Your task to perform on an android device: open app "Indeed Job Search" (install if not already installed) and enter user name: "quixotic@inbox.com" and password: "microphones" Image 0: 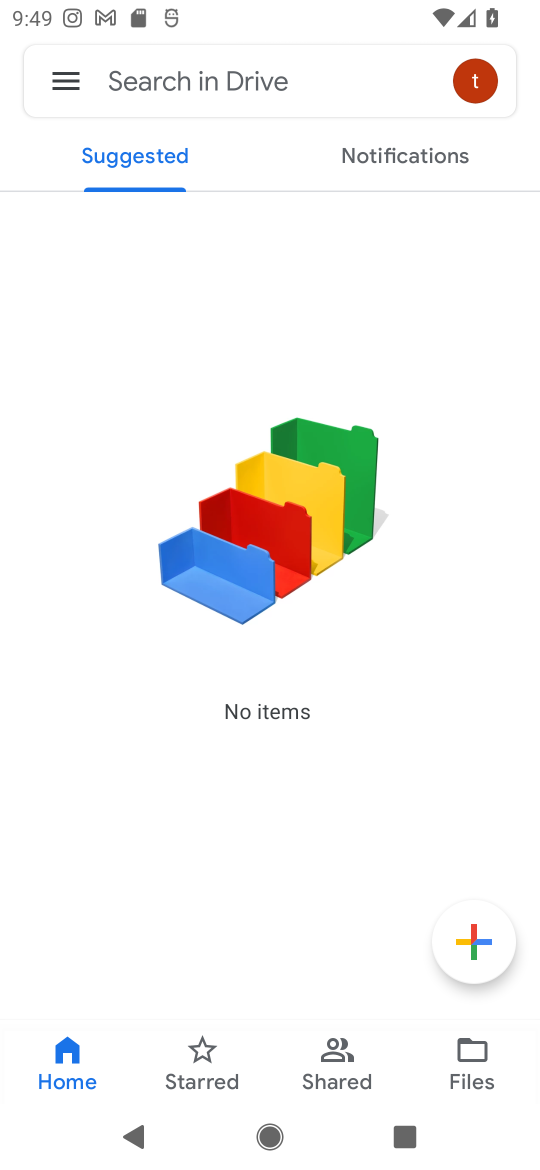
Step 0: press home button
Your task to perform on an android device: open app "Indeed Job Search" (install if not already installed) and enter user name: "quixotic@inbox.com" and password: "microphones" Image 1: 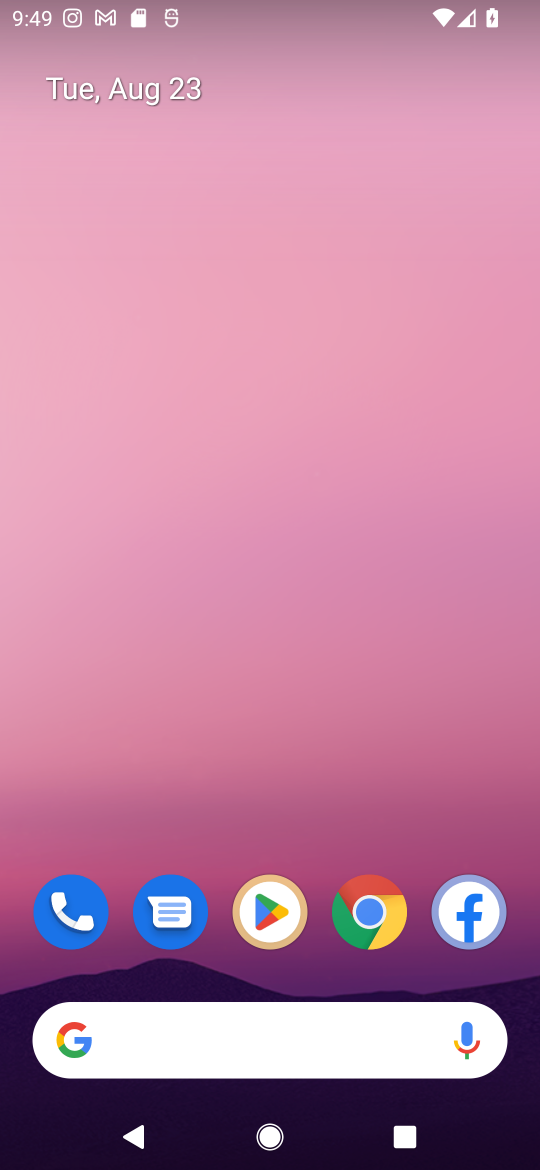
Step 1: click (263, 913)
Your task to perform on an android device: open app "Indeed Job Search" (install if not already installed) and enter user name: "quixotic@inbox.com" and password: "microphones" Image 2: 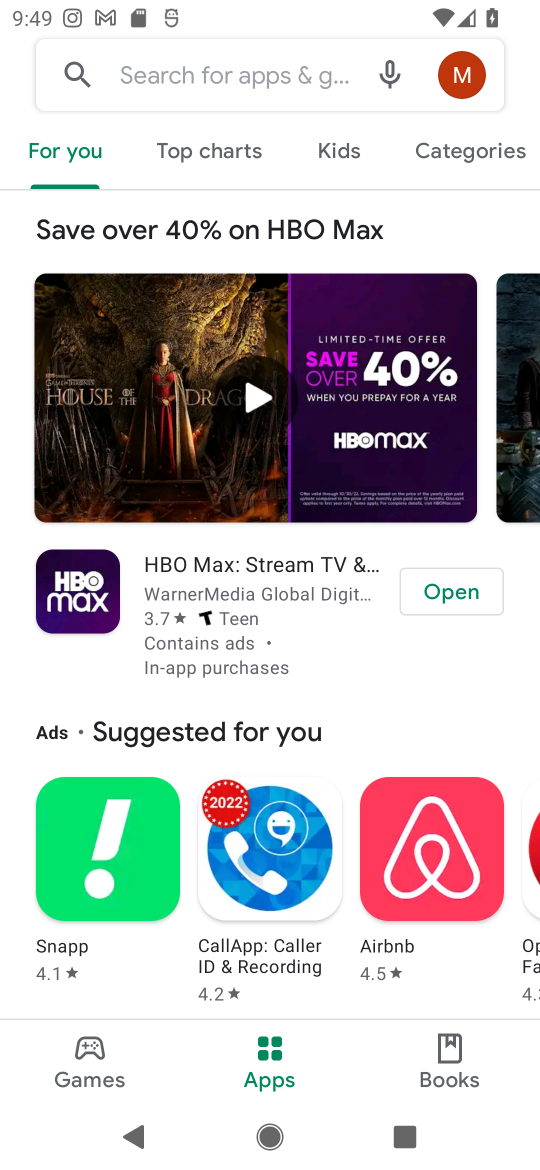
Step 2: click (245, 81)
Your task to perform on an android device: open app "Indeed Job Search" (install if not already installed) and enter user name: "quixotic@inbox.com" and password: "microphones" Image 3: 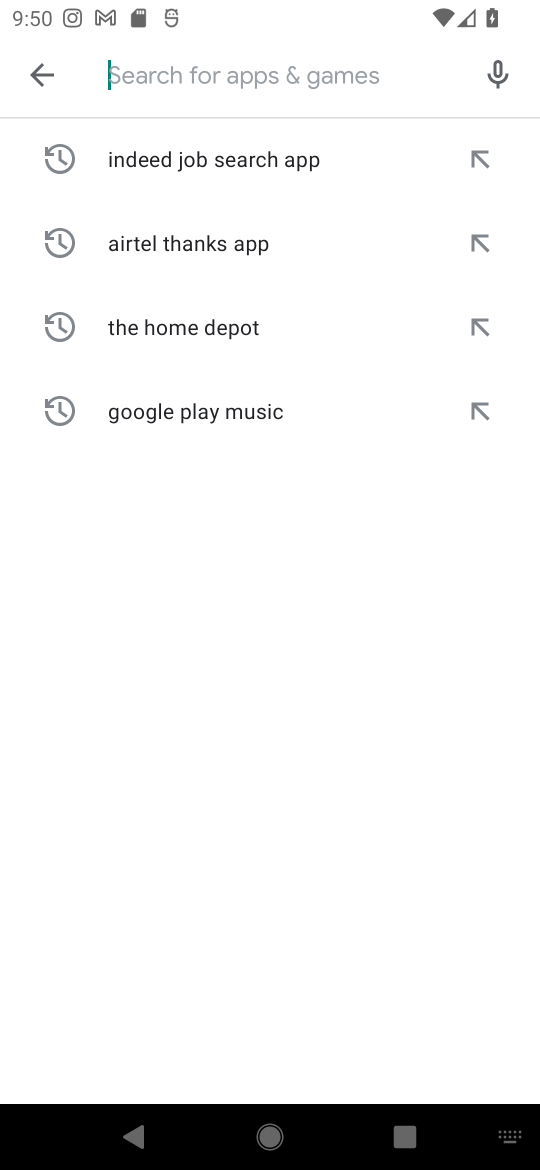
Step 3: type "Indeed Job Search"
Your task to perform on an android device: open app "Indeed Job Search" (install if not already installed) and enter user name: "quixotic@inbox.com" and password: "microphones" Image 4: 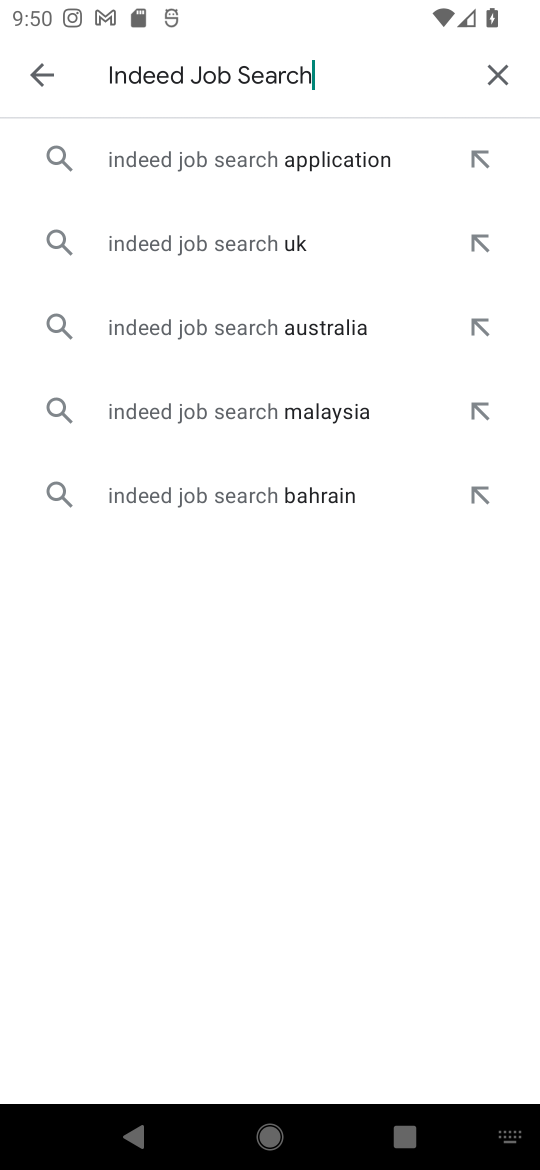
Step 4: click (239, 161)
Your task to perform on an android device: open app "Indeed Job Search" (install if not already installed) and enter user name: "quixotic@inbox.com" and password: "microphones" Image 5: 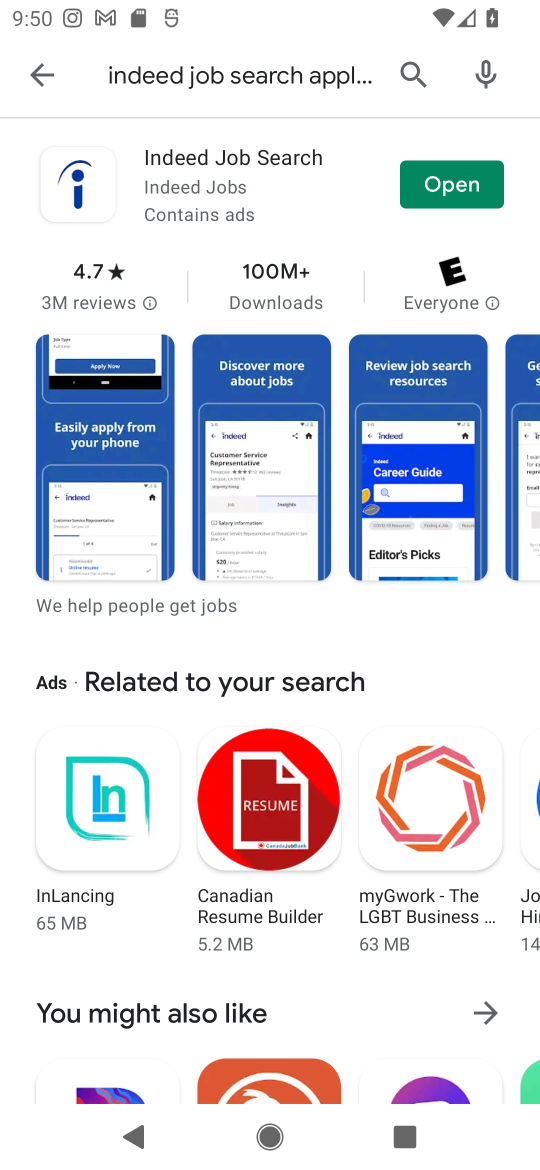
Step 5: click (461, 182)
Your task to perform on an android device: open app "Indeed Job Search" (install if not already installed) and enter user name: "quixotic@inbox.com" and password: "microphones" Image 6: 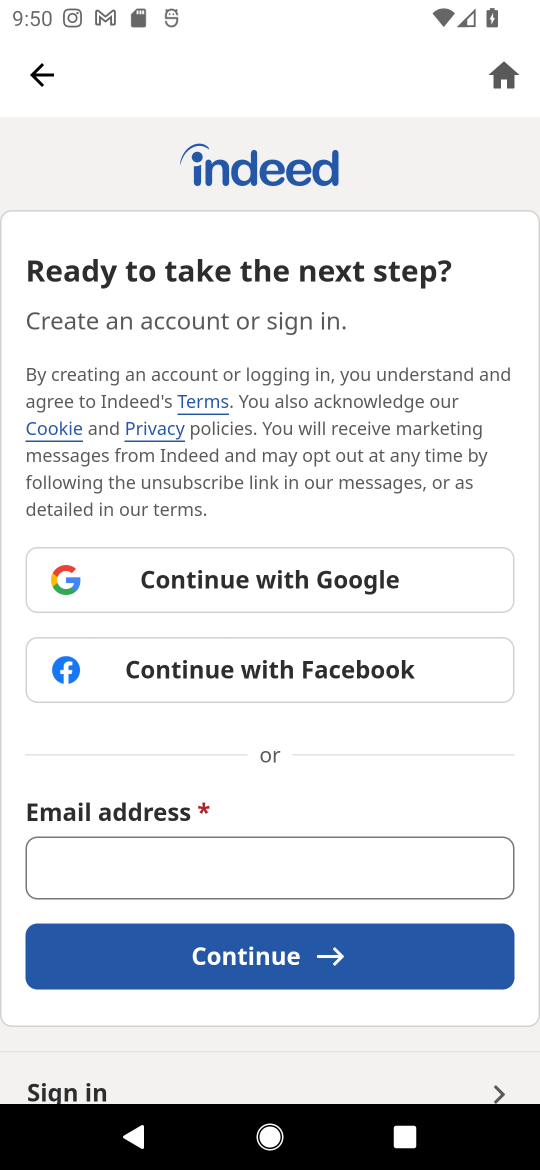
Step 6: click (229, 865)
Your task to perform on an android device: open app "Indeed Job Search" (install if not already installed) and enter user name: "quixotic@inbox.com" and password: "microphones" Image 7: 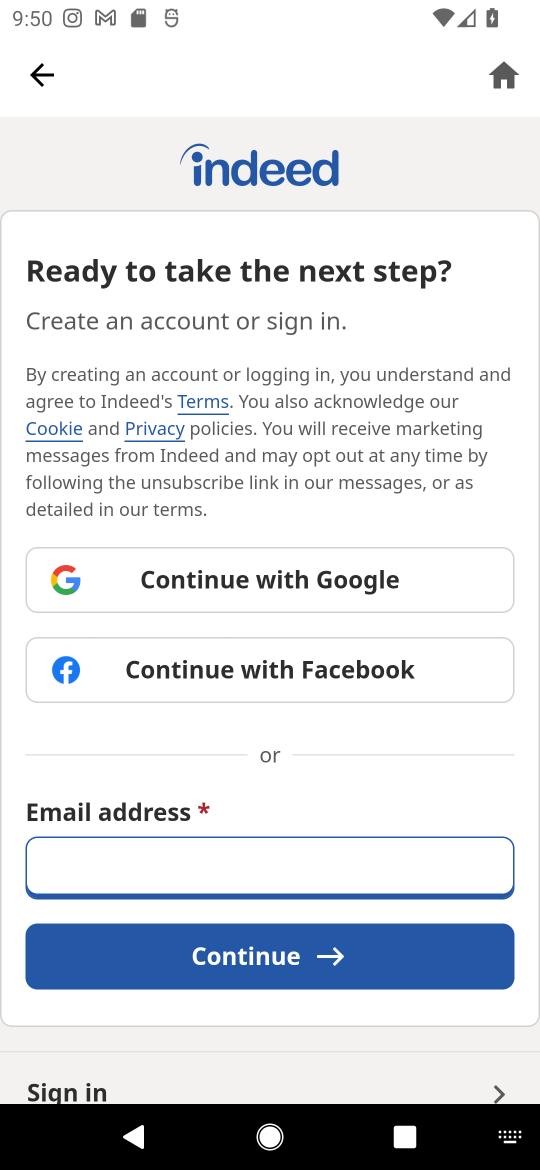
Step 7: type "quixotic@inbox.com"
Your task to perform on an android device: open app "Indeed Job Search" (install if not already installed) and enter user name: "quixotic@inbox.com" and password: "microphones" Image 8: 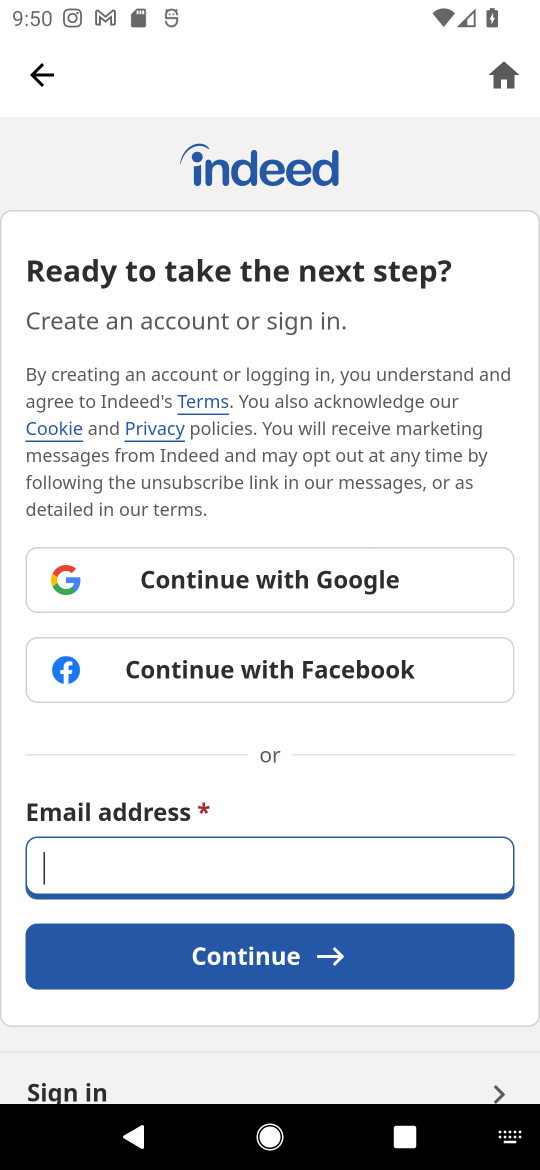
Step 8: type ""
Your task to perform on an android device: open app "Indeed Job Search" (install if not already installed) and enter user name: "quixotic@inbox.com" and password: "microphones" Image 9: 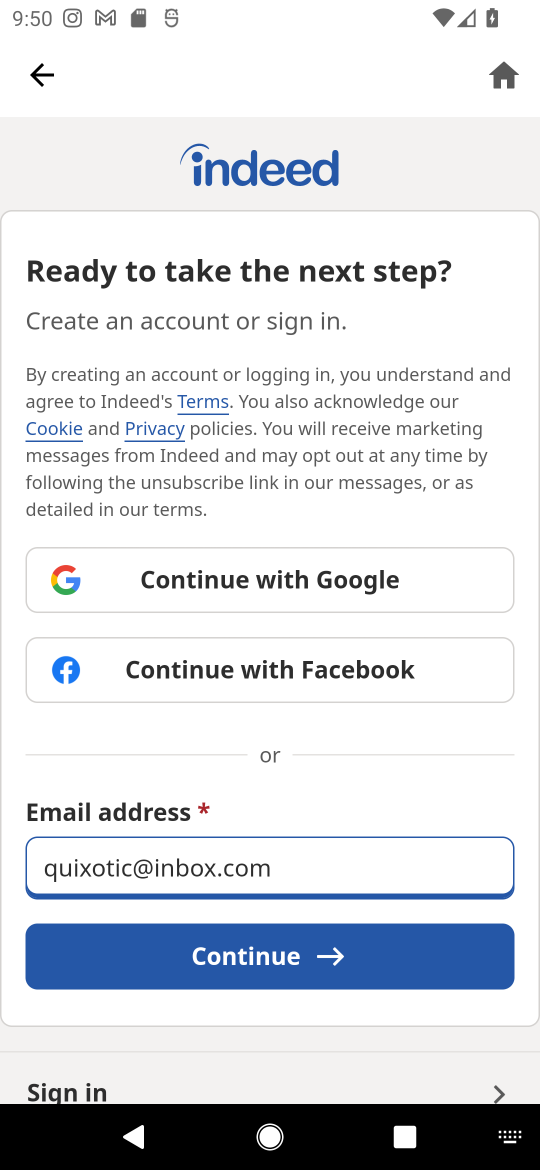
Step 9: click (325, 949)
Your task to perform on an android device: open app "Indeed Job Search" (install if not already installed) and enter user name: "quixotic@inbox.com" and password: "microphones" Image 10: 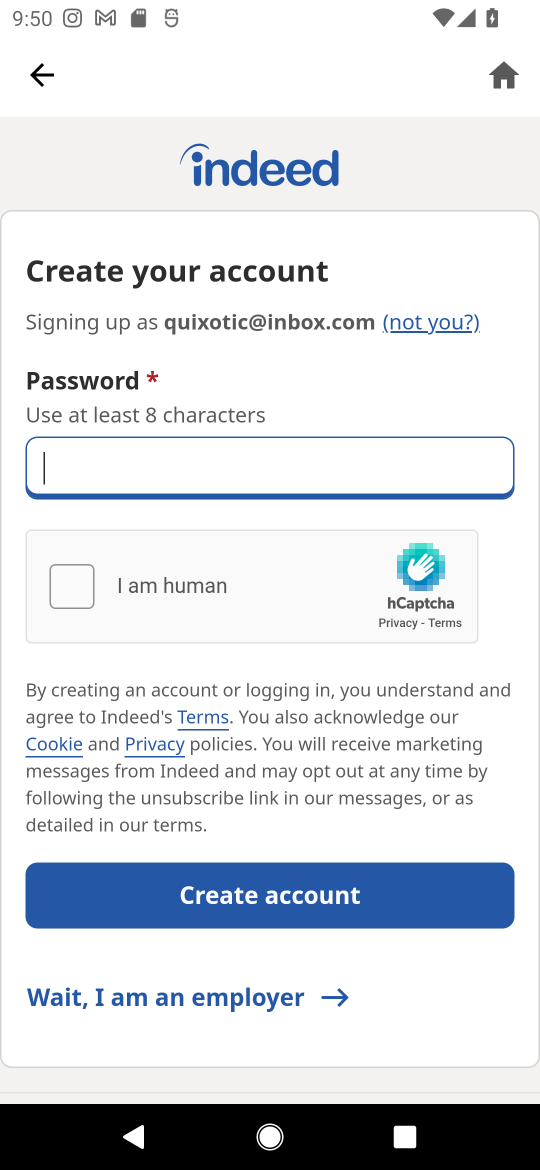
Step 10: type "microphones"
Your task to perform on an android device: open app "Indeed Job Search" (install if not already installed) and enter user name: "quixotic@inbox.com" and password: "microphones" Image 11: 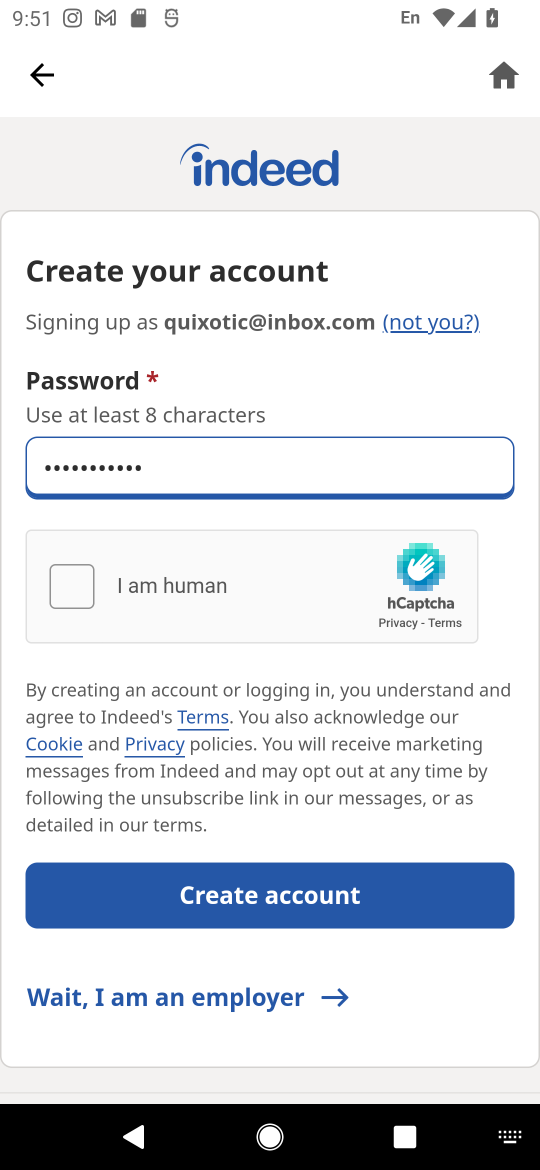
Step 11: task complete